Your task to perform on an android device: Search for the best fantasy books on Goodreads. Image 0: 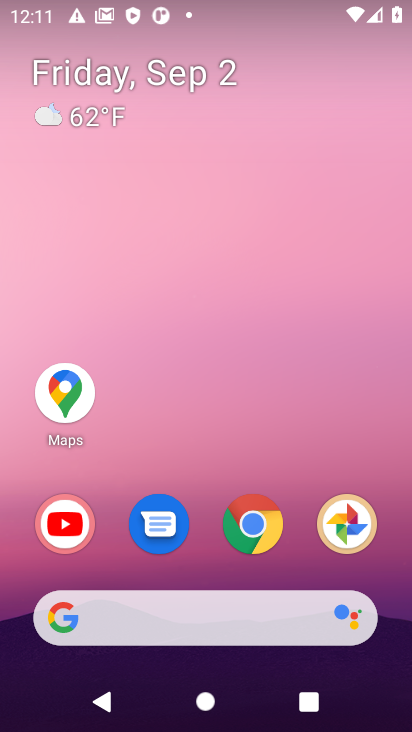
Step 0: click (253, 521)
Your task to perform on an android device: Search for the best fantasy books on Goodreads. Image 1: 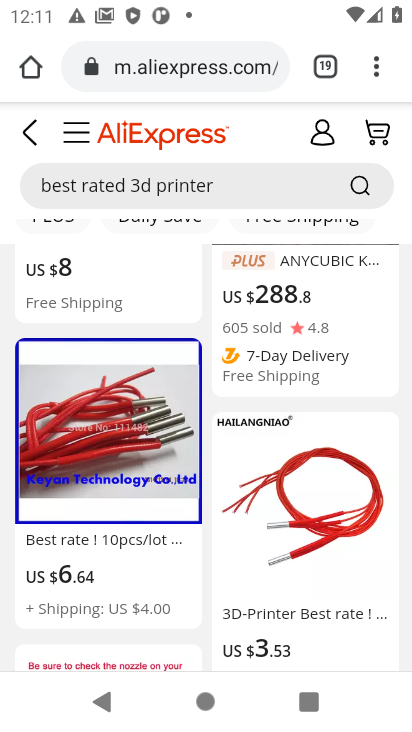
Step 1: click (321, 66)
Your task to perform on an android device: Search for the best fantasy books on Goodreads. Image 2: 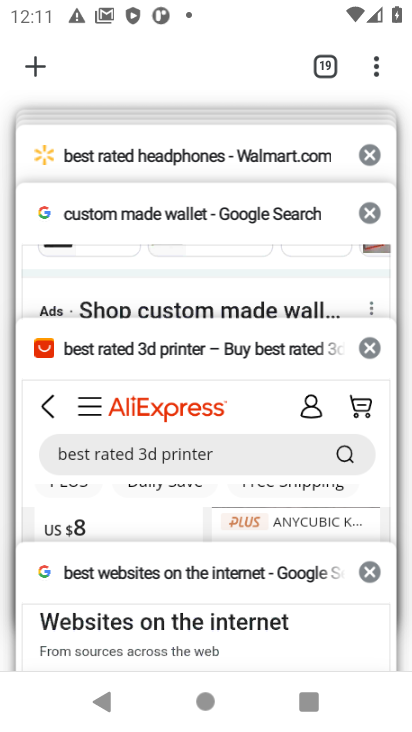
Step 2: click (148, 574)
Your task to perform on an android device: Search for the best fantasy books on Goodreads. Image 3: 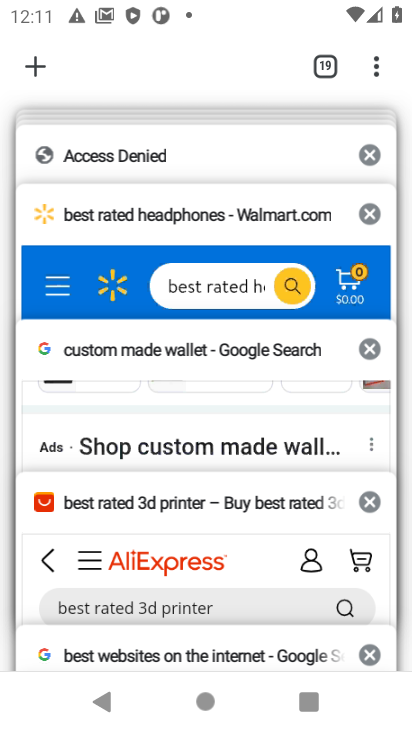
Step 3: drag from (154, 152) to (165, 674)
Your task to perform on an android device: Search for the best fantasy books on Goodreads. Image 4: 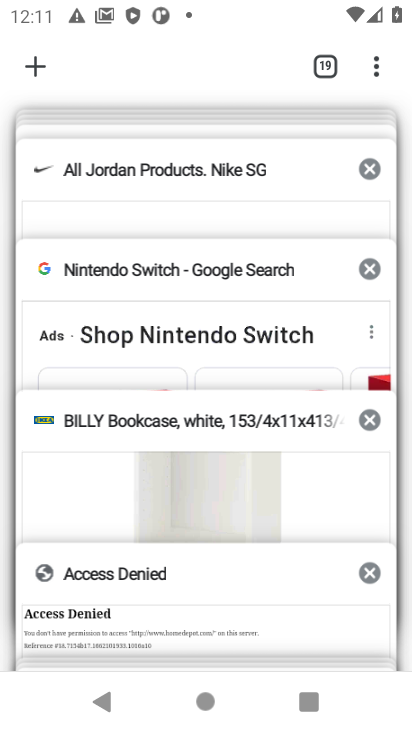
Step 4: drag from (181, 157) to (217, 628)
Your task to perform on an android device: Search for the best fantasy books on Goodreads. Image 5: 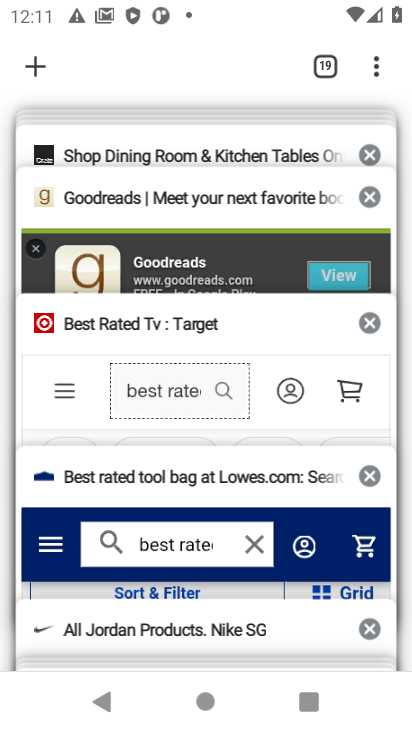
Step 5: click (235, 221)
Your task to perform on an android device: Search for the best fantasy books on Goodreads. Image 6: 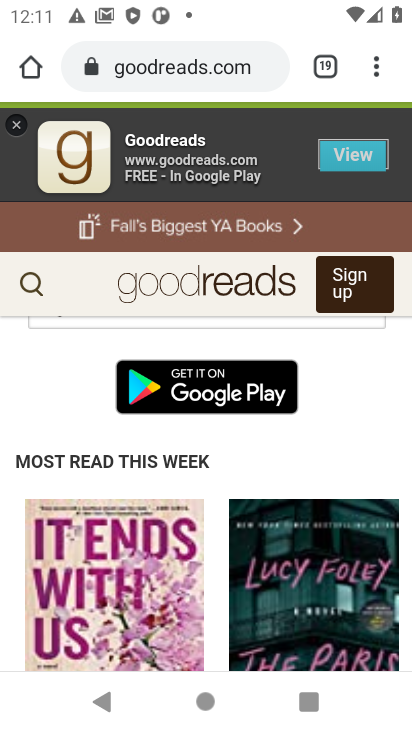
Step 6: click (28, 286)
Your task to perform on an android device: Search for the best fantasy books on Goodreads. Image 7: 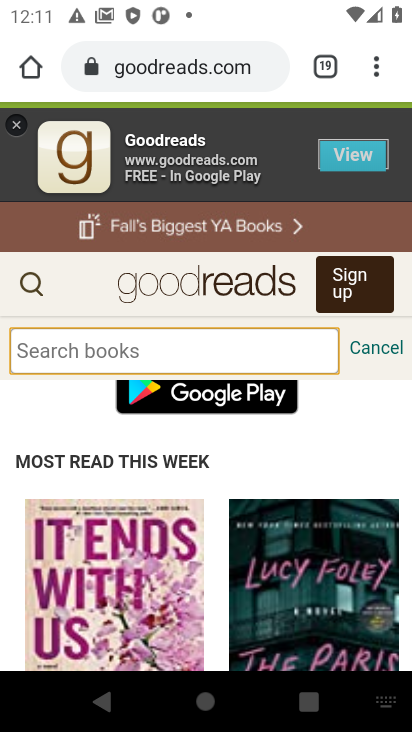
Step 7: click (75, 350)
Your task to perform on an android device: Search for the best fantasy books on Goodreads. Image 8: 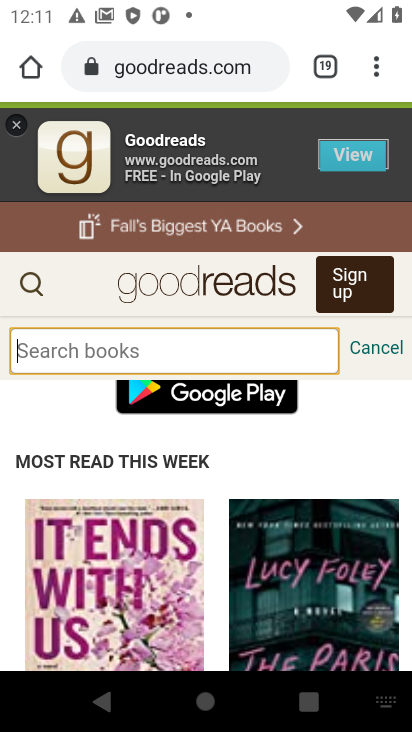
Step 8: type "best fantasy books "
Your task to perform on an android device: Search for the best fantasy books on Goodreads. Image 9: 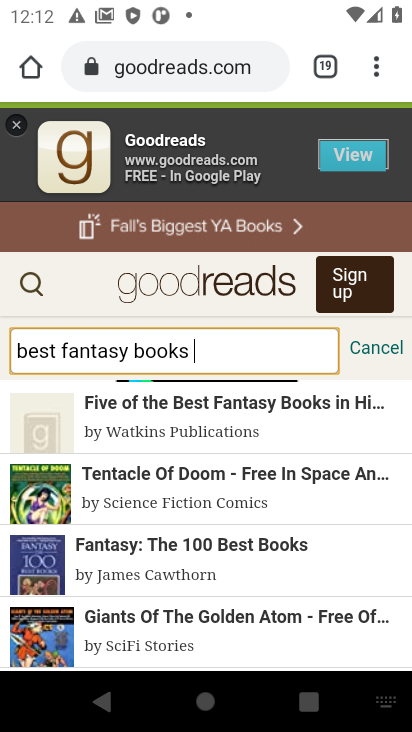
Step 9: drag from (320, 633) to (300, 352)
Your task to perform on an android device: Search for the best fantasy books on Goodreads. Image 10: 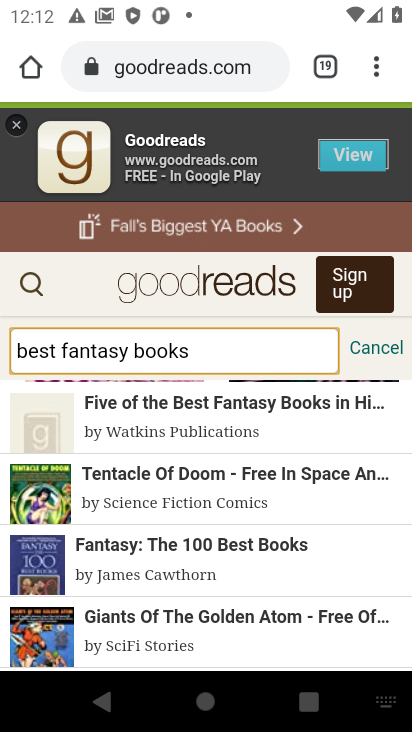
Step 10: drag from (204, 426) to (207, 623)
Your task to perform on an android device: Search for the best fantasy books on Goodreads. Image 11: 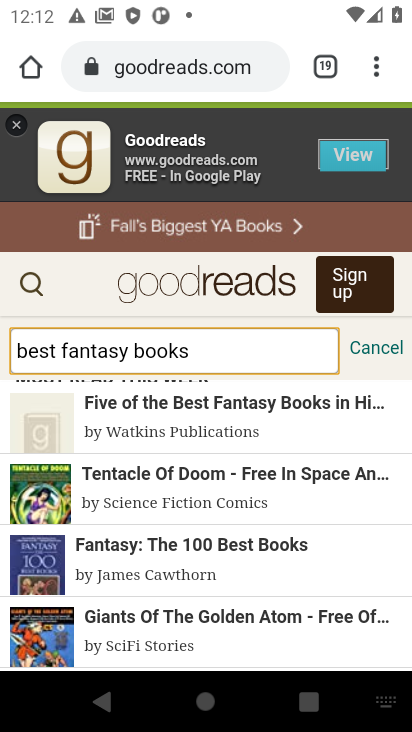
Step 11: click (16, 125)
Your task to perform on an android device: Search for the best fantasy books on Goodreads. Image 12: 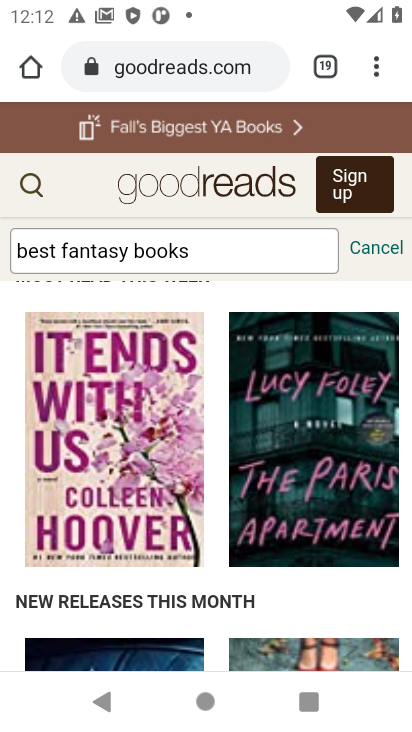
Step 12: click (215, 249)
Your task to perform on an android device: Search for the best fantasy books on Goodreads. Image 13: 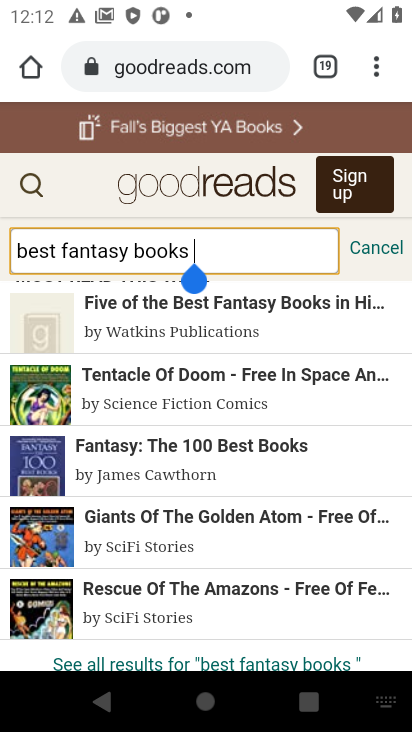
Step 13: click (202, 659)
Your task to perform on an android device: Search for the best fantasy books on Goodreads. Image 14: 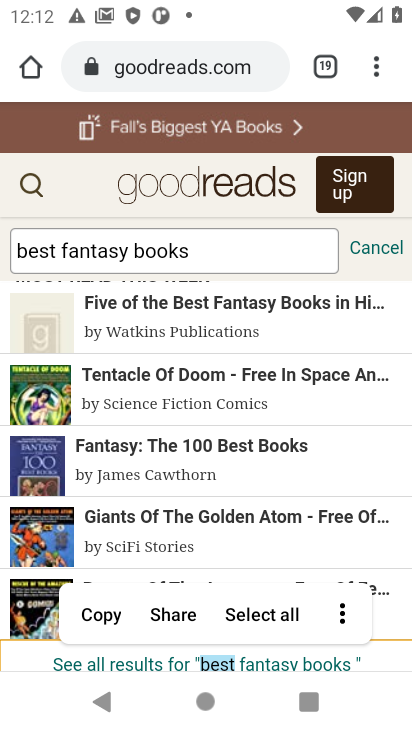
Step 14: click (147, 665)
Your task to perform on an android device: Search for the best fantasy books on Goodreads. Image 15: 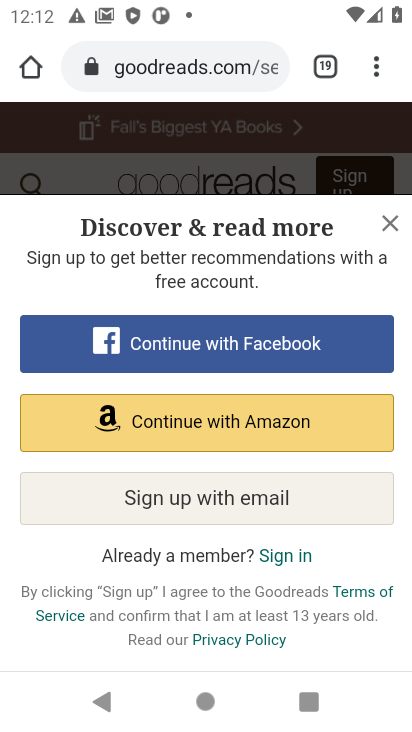
Step 15: click (387, 217)
Your task to perform on an android device: Search for the best fantasy books on Goodreads. Image 16: 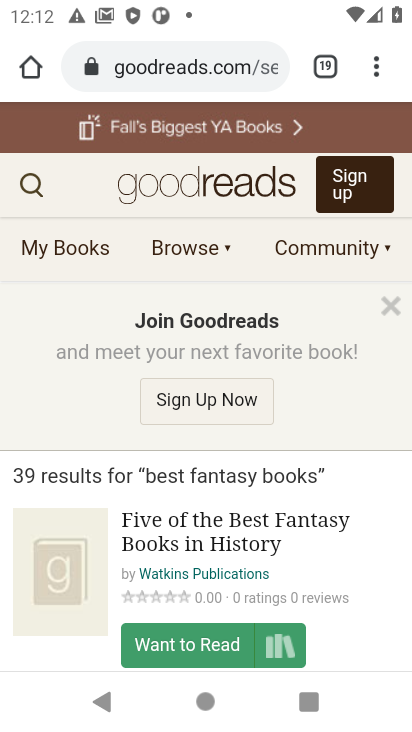
Step 16: task complete